Your task to perform on an android device: Add "logitech g910" to the cart on newegg Image 0: 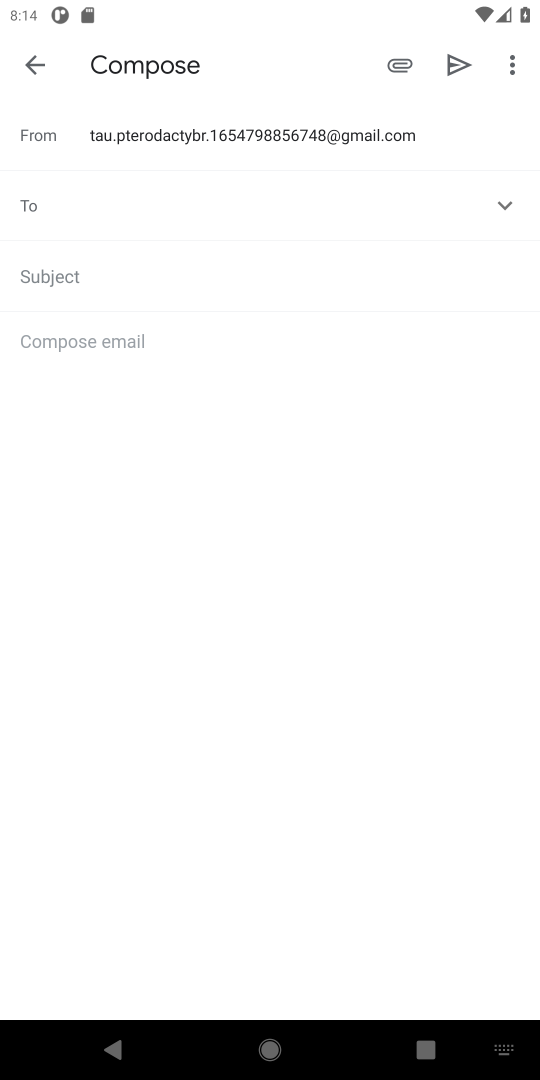
Step 0: press enter
Your task to perform on an android device: Add "logitech g910" to the cart on newegg Image 1: 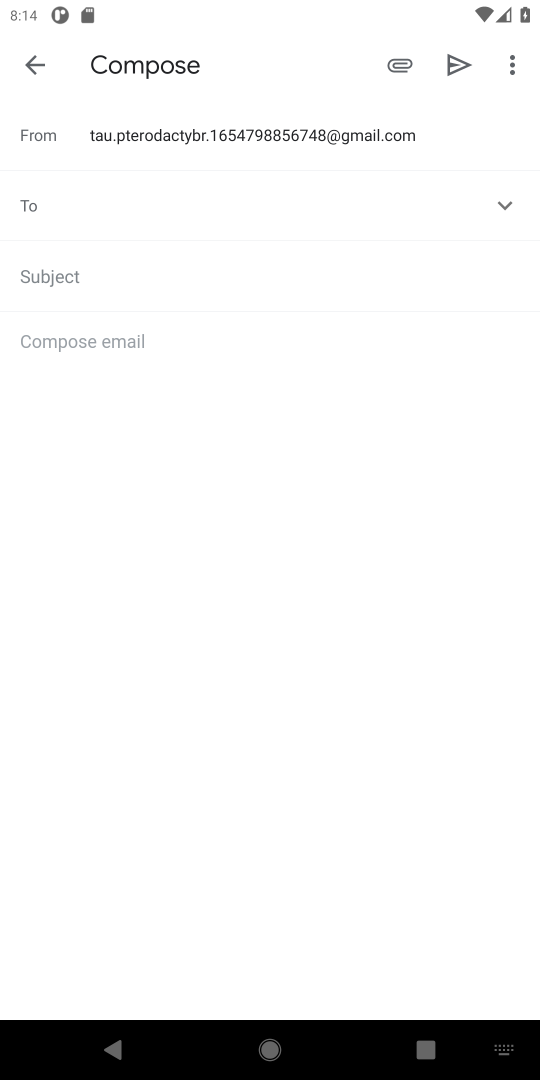
Step 1: press home button
Your task to perform on an android device: Add "logitech g910" to the cart on newegg Image 2: 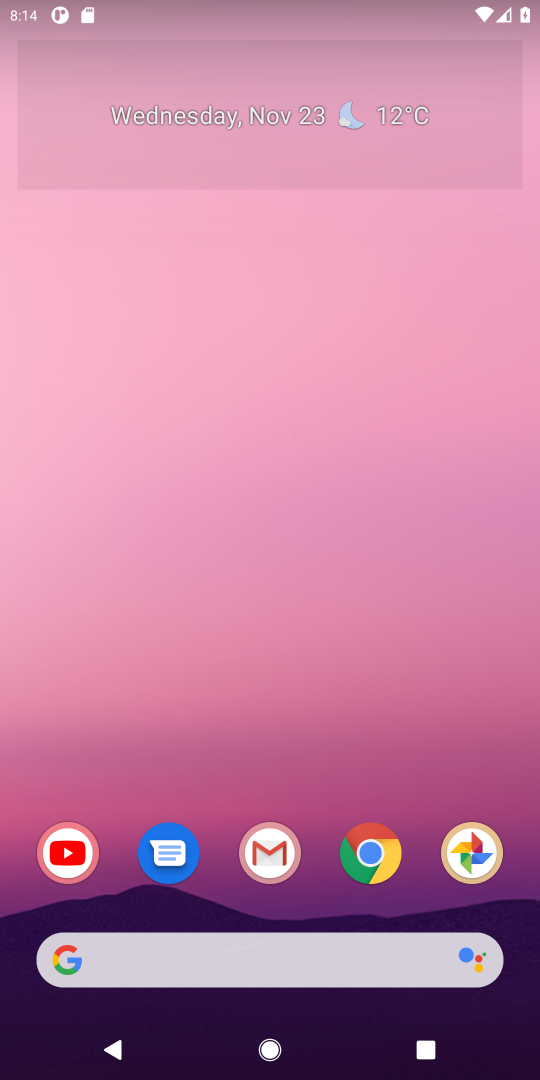
Step 2: click (375, 862)
Your task to perform on an android device: Add "logitech g910" to the cart on newegg Image 3: 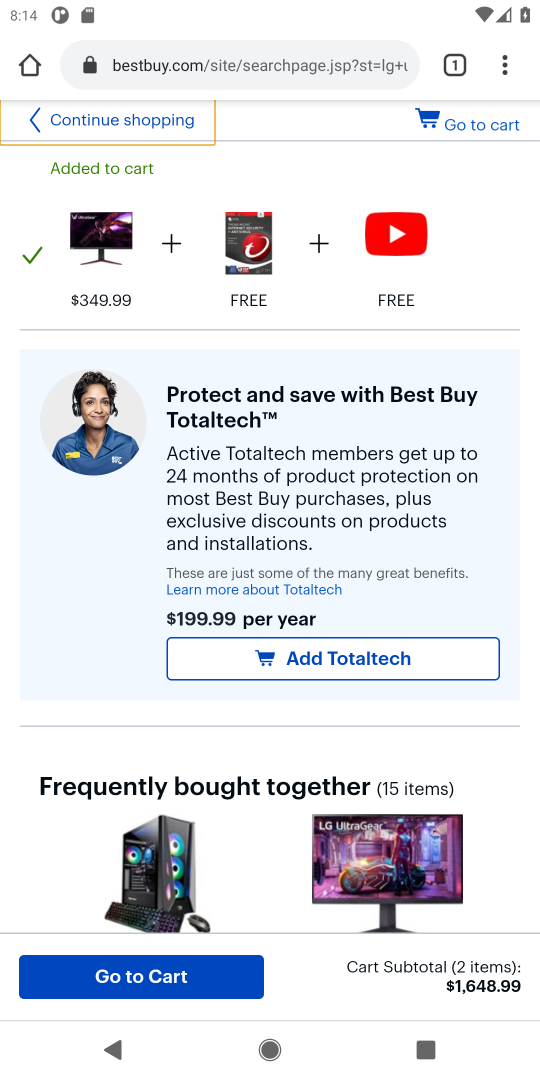
Step 3: click (180, 68)
Your task to perform on an android device: Add "logitech g910" to the cart on newegg Image 4: 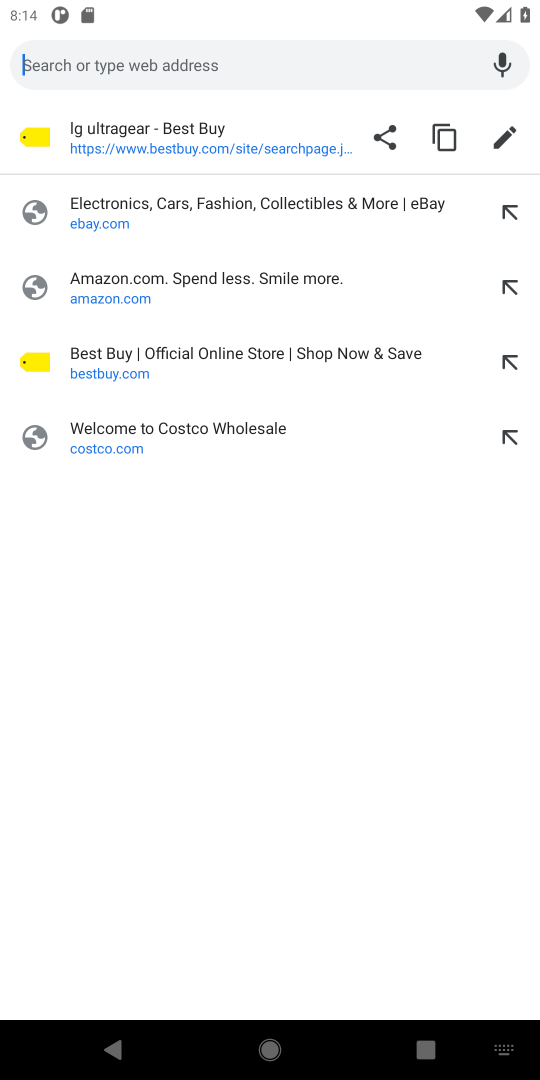
Step 4: type "newegg.com"
Your task to perform on an android device: Add "logitech g910" to the cart on newegg Image 5: 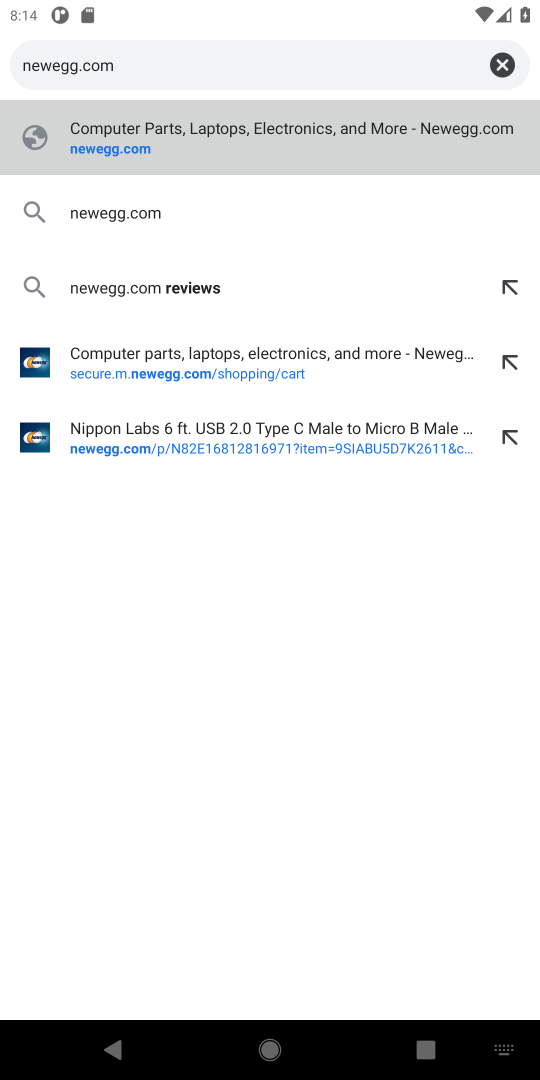
Step 5: click (128, 150)
Your task to perform on an android device: Add "logitech g910" to the cart on newegg Image 6: 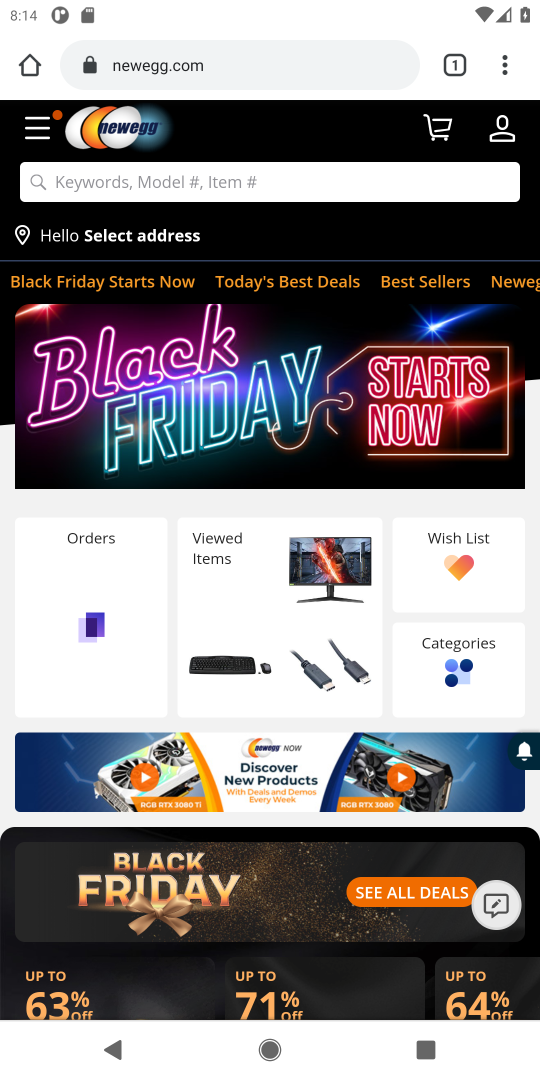
Step 6: click (266, 190)
Your task to perform on an android device: Add "logitech g910" to the cart on newegg Image 7: 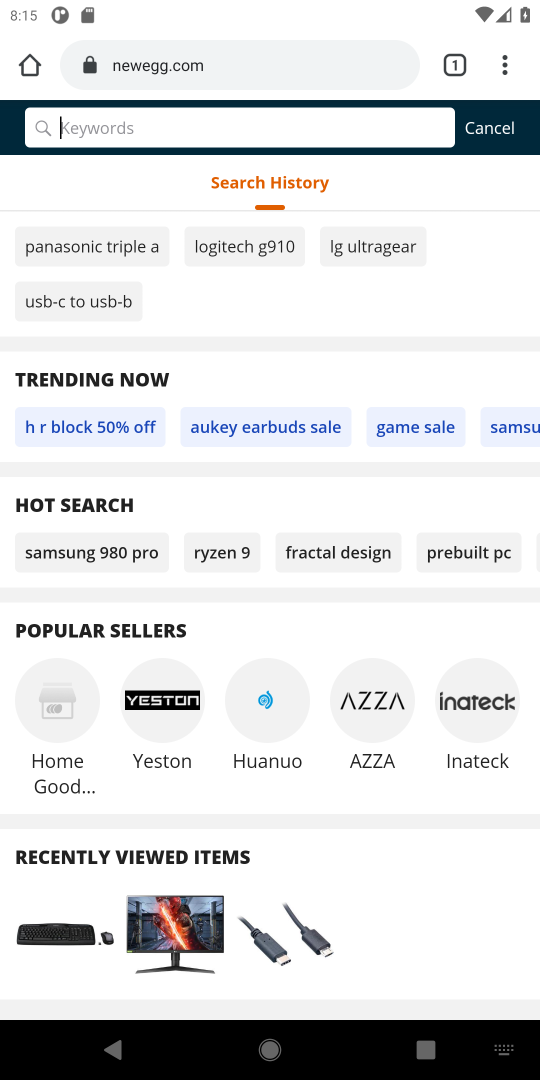
Step 7: type "logitech g910"
Your task to perform on an android device: Add "logitech g910" to the cart on newegg Image 8: 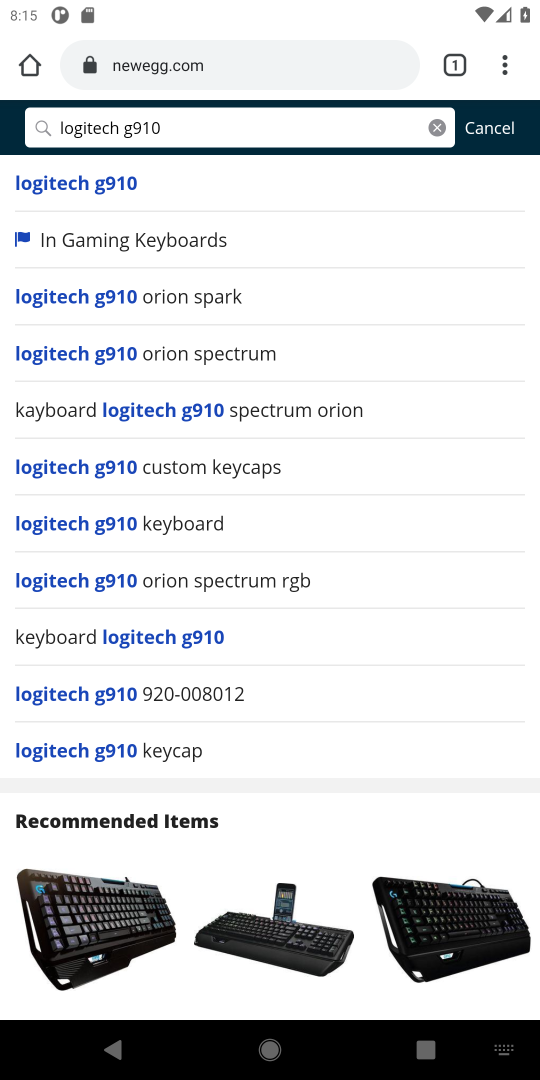
Step 8: click (74, 182)
Your task to perform on an android device: Add "logitech g910" to the cart on newegg Image 9: 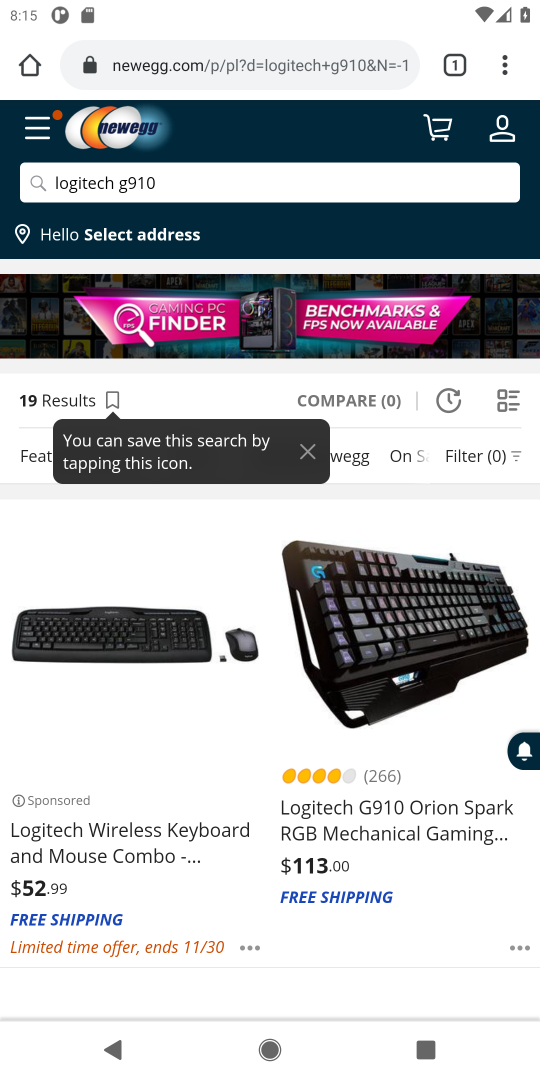
Step 9: click (426, 720)
Your task to perform on an android device: Add "logitech g910" to the cart on newegg Image 10: 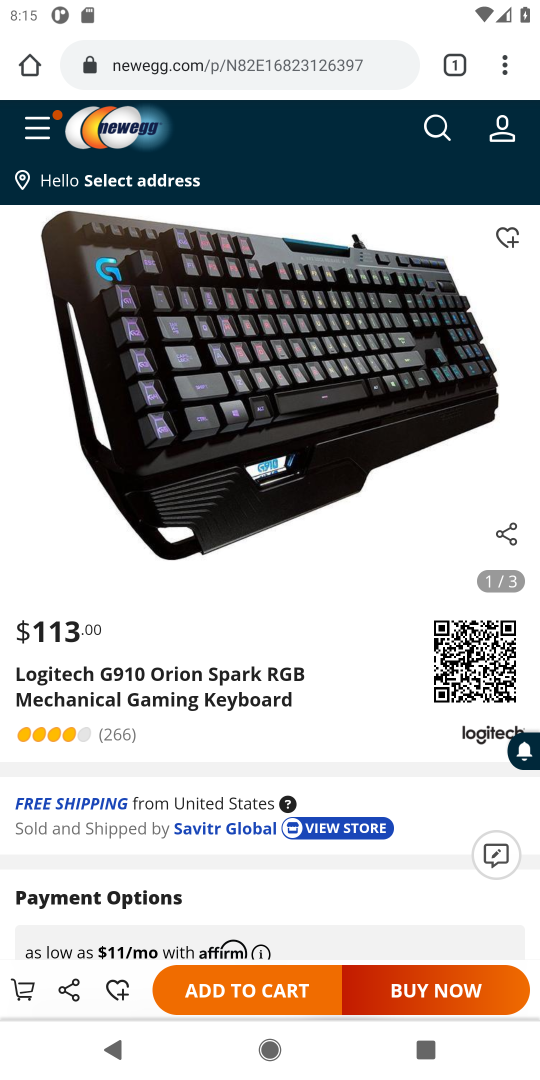
Step 10: click (247, 995)
Your task to perform on an android device: Add "logitech g910" to the cart on newegg Image 11: 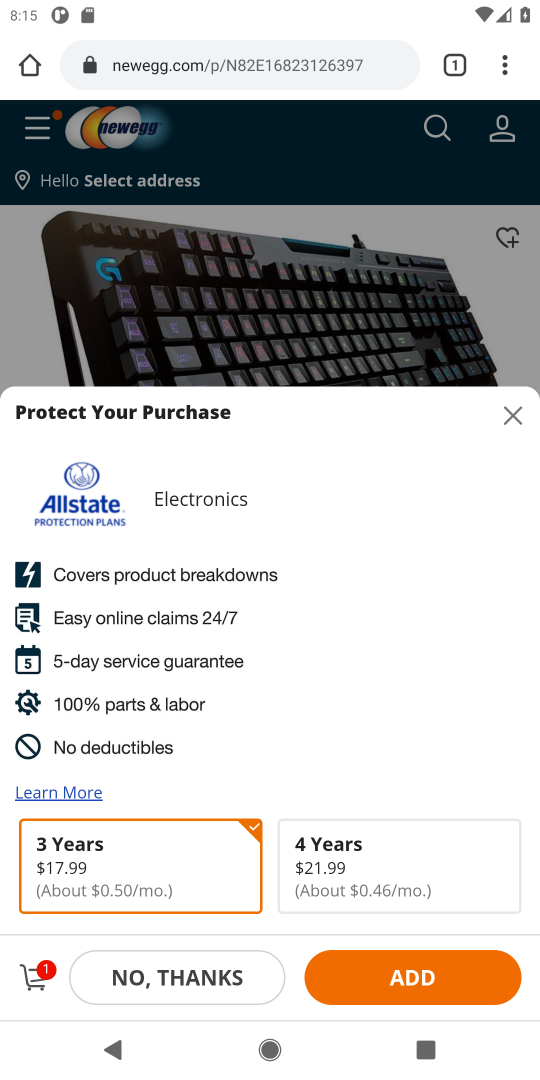
Step 11: task complete